Your task to perform on an android device: Open Amazon Image 0: 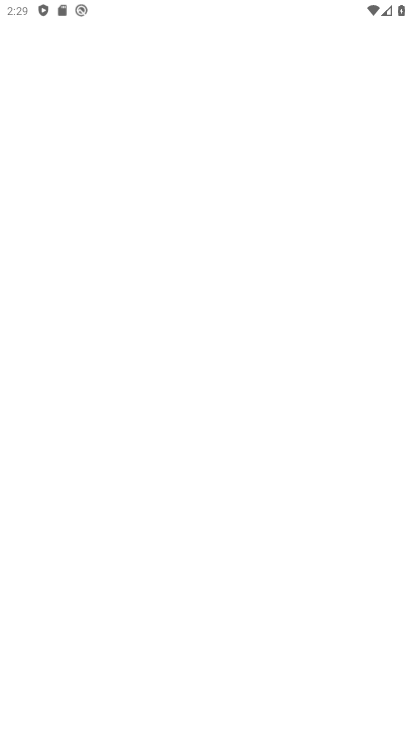
Step 0: click (48, 405)
Your task to perform on an android device: Open Amazon Image 1: 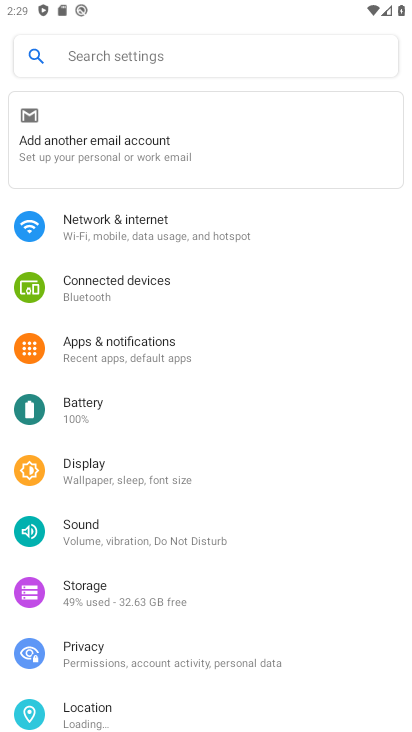
Step 1: press home button
Your task to perform on an android device: Open Amazon Image 2: 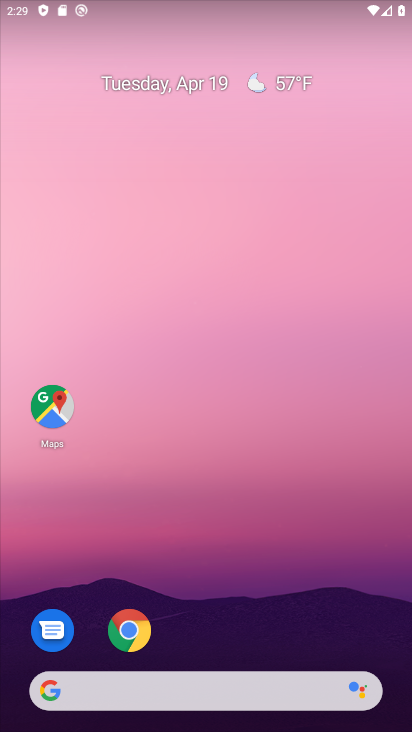
Step 2: click (128, 629)
Your task to perform on an android device: Open Amazon Image 3: 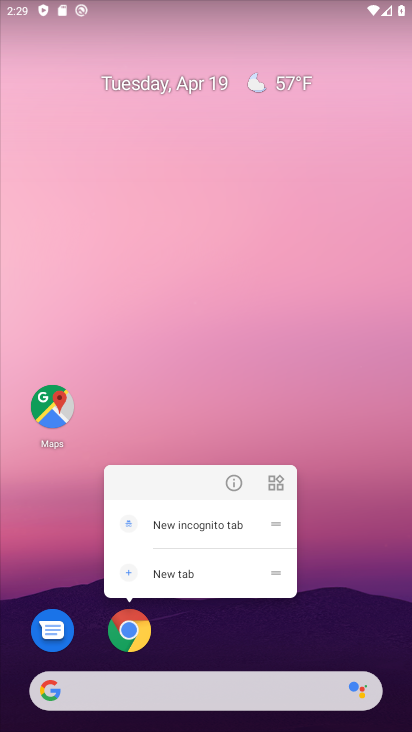
Step 3: click (139, 632)
Your task to perform on an android device: Open Amazon Image 4: 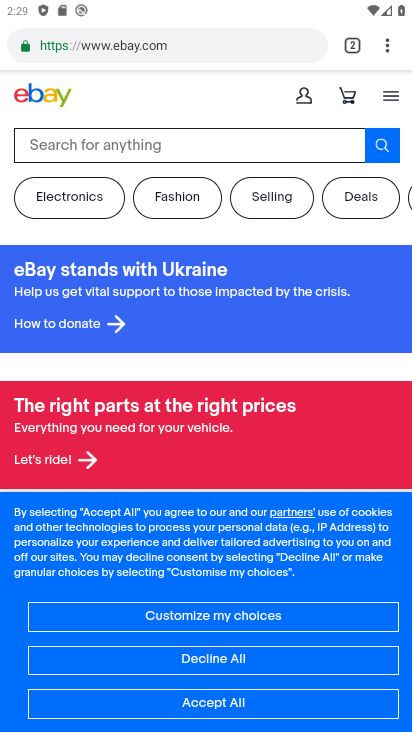
Step 4: click (349, 40)
Your task to perform on an android device: Open Amazon Image 5: 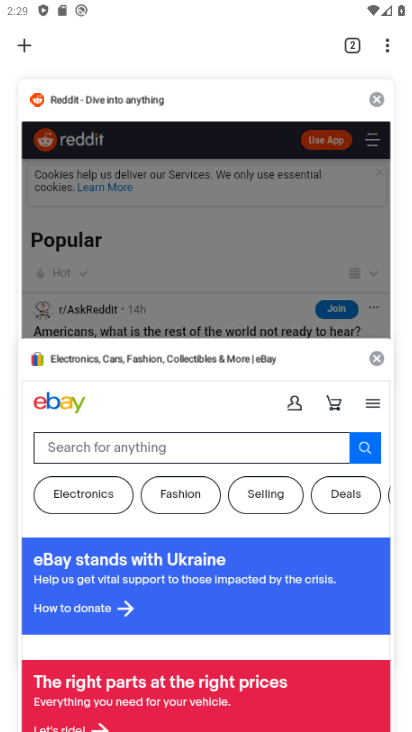
Step 5: click (22, 43)
Your task to perform on an android device: Open Amazon Image 6: 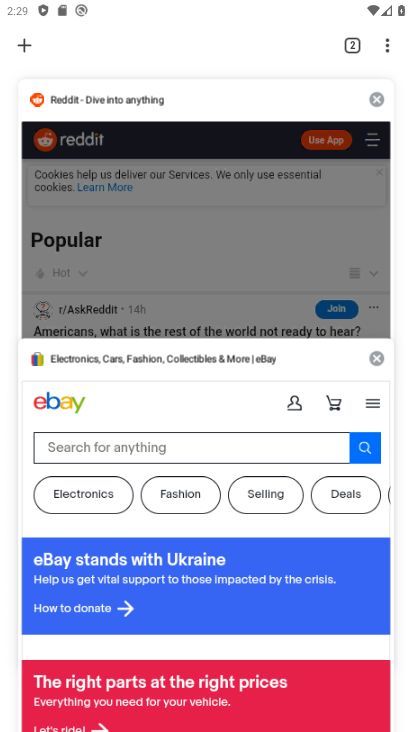
Step 6: click (26, 45)
Your task to perform on an android device: Open Amazon Image 7: 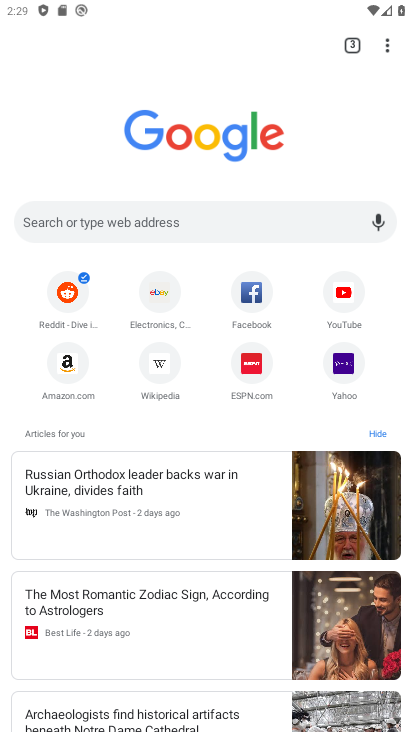
Step 7: click (63, 367)
Your task to perform on an android device: Open Amazon Image 8: 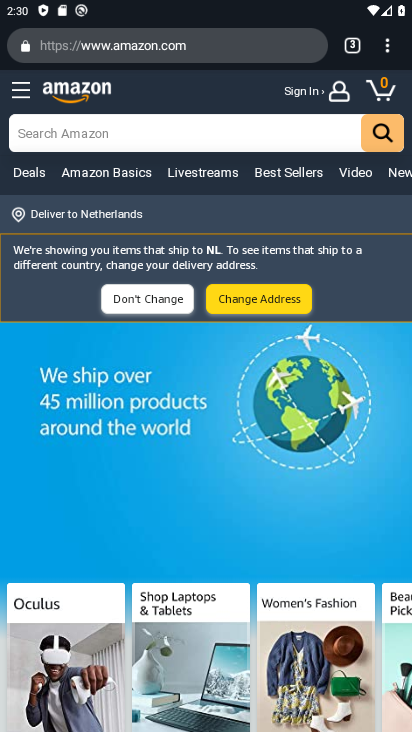
Step 8: task complete